Your task to perform on an android device: turn notification dots on Image 0: 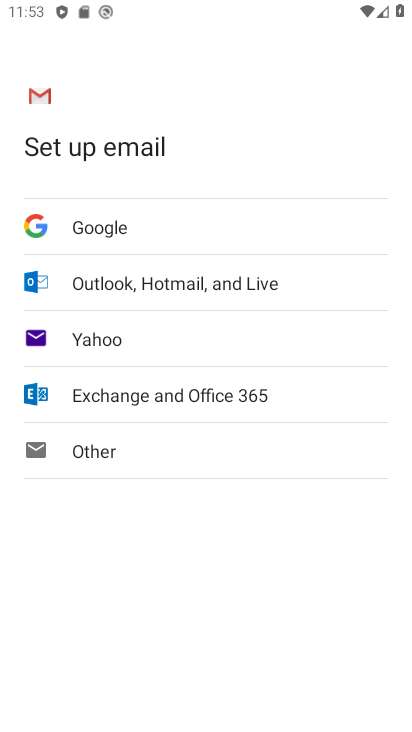
Step 0: press home button
Your task to perform on an android device: turn notification dots on Image 1: 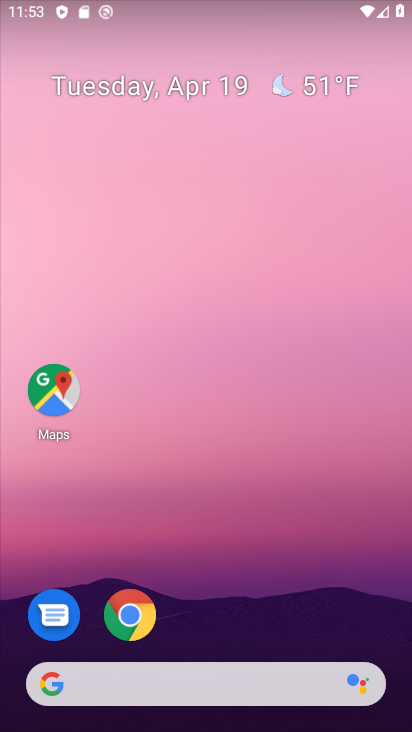
Step 1: drag from (305, 532) to (332, 37)
Your task to perform on an android device: turn notification dots on Image 2: 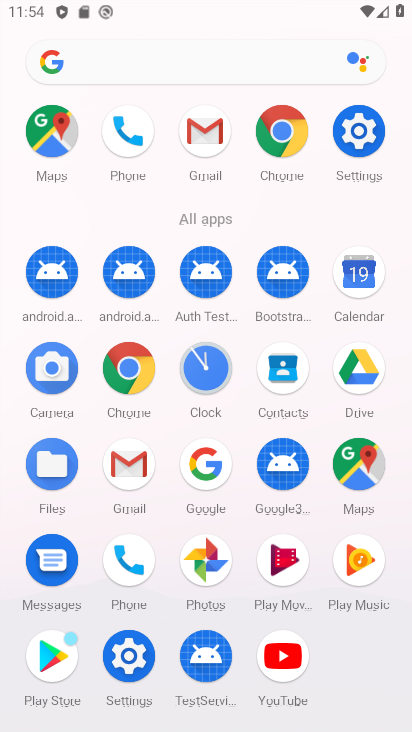
Step 2: click (353, 141)
Your task to perform on an android device: turn notification dots on Image 3: 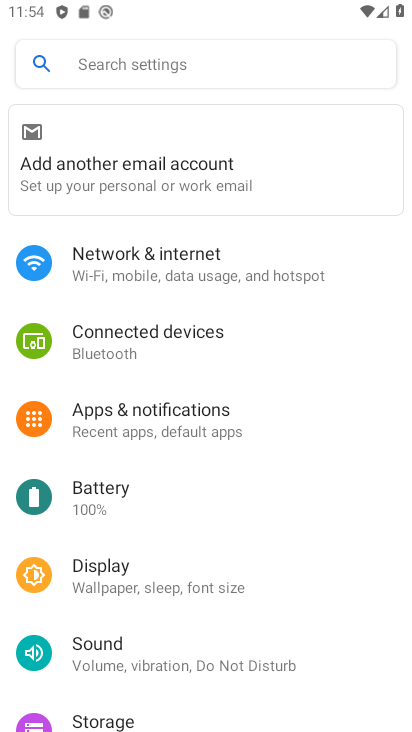
Step 3: click (128, 430)
Your task to perform on an android device: turn notification dots on Image 4: 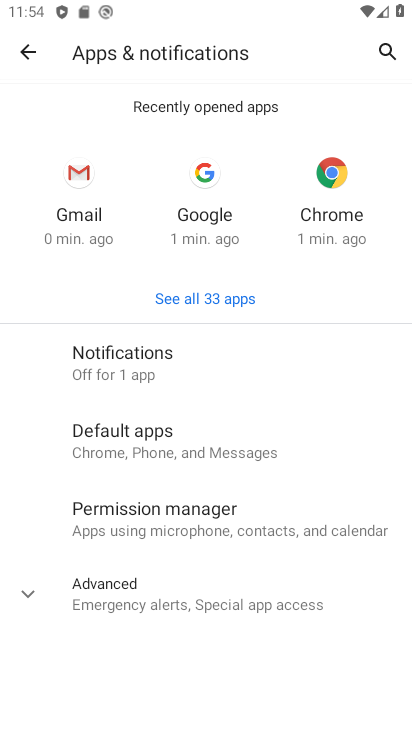
Step 4: click (123, 376)
Your task to perform on an android device: turn notification dots on Image 5: 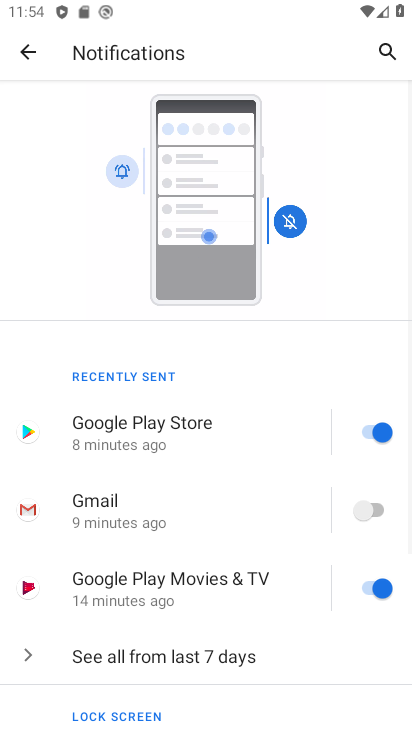
Step 5: drag from (199, 511) to (201, 59)
Your task to perform on an android device: turn notification dots on Image 6: 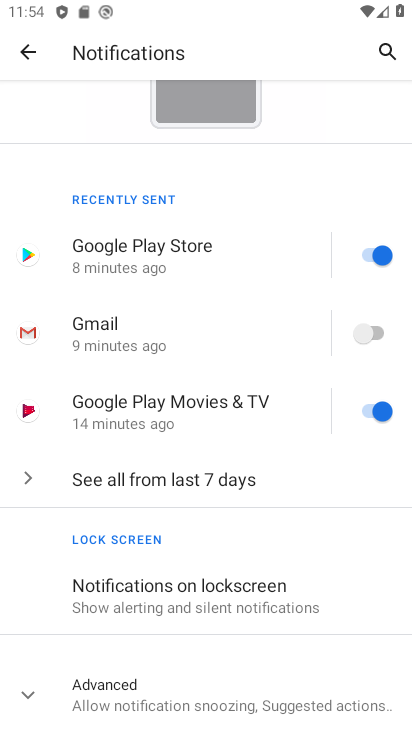
Step 6: click (27, 702)
Your task to perform on an android device: turn notification dots on Image 7: 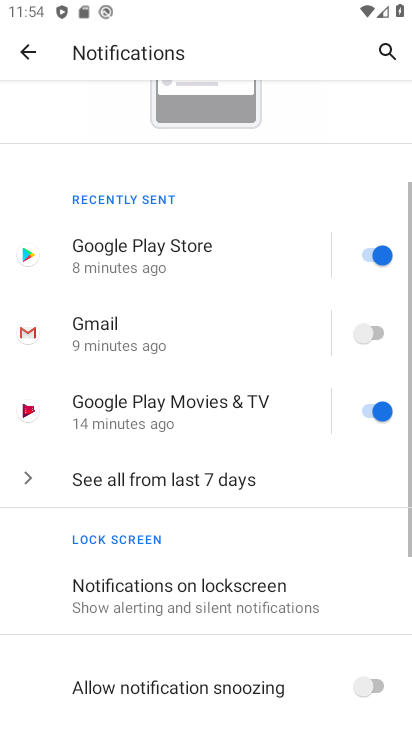
Step 7: task complete